Your task to perform on an android device: Open Yahoo.com Image 0: 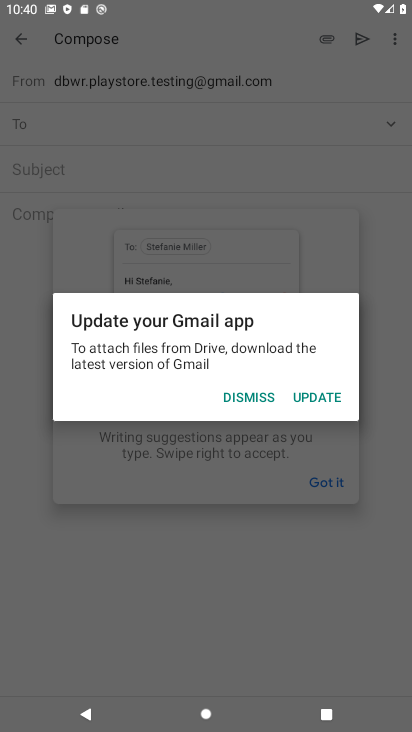
Step 0: press home button
Your task to perform on an android device: Open Yahoo.com Image 1: 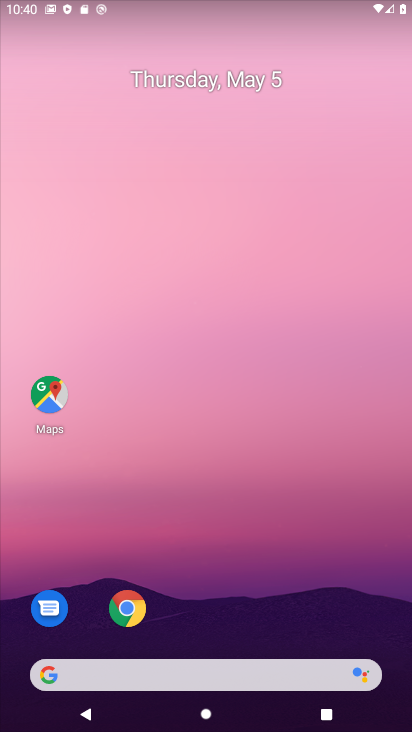
Step 1: click (128, 609)
Your task to perform on an android device: Open Yahoo.com Image 2: 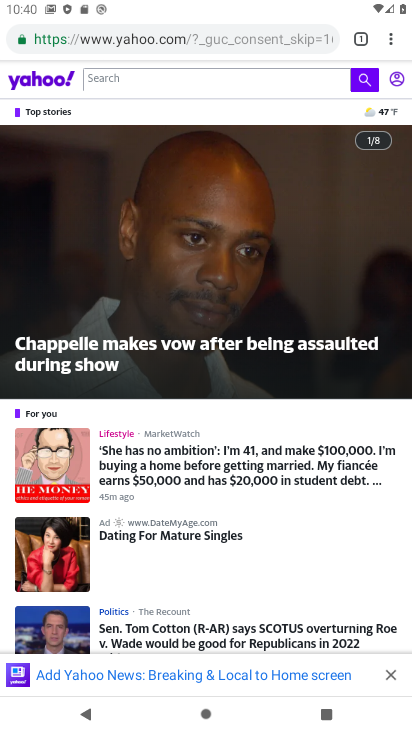
Step 2: task complete